Your task to perform on an android device: Show me the alarms in the clock app Image 0: 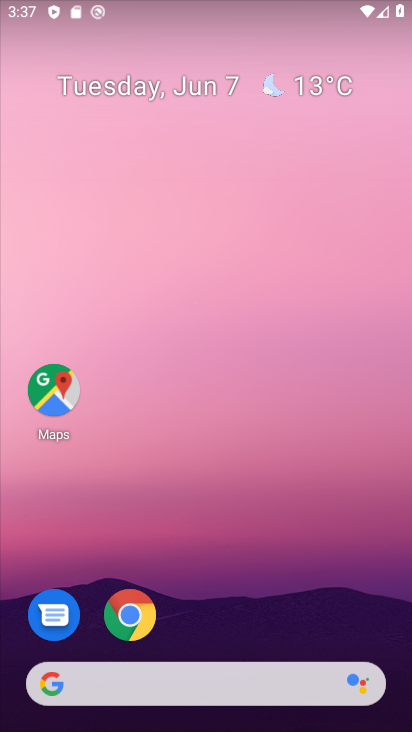
Step 0: drag from (236, 645) to (253, 423)
Your task to perform on an android device: Show me the alarms in the clock app Image 1: 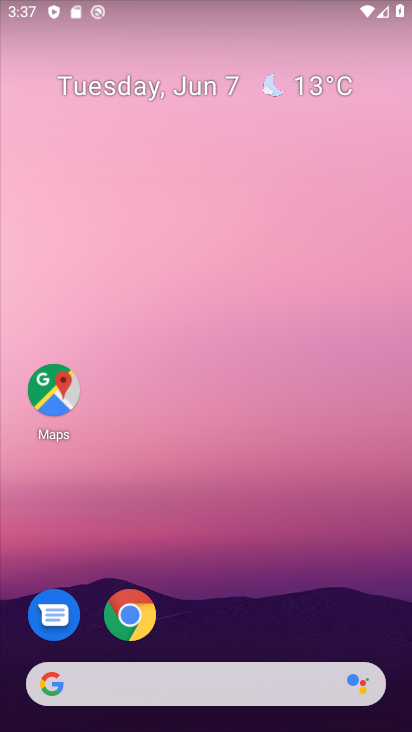
Step 1: drag from (187, 637) to (276, 145)
Your task to perform on an android device: Show me the alarms in the clock app Image 2: 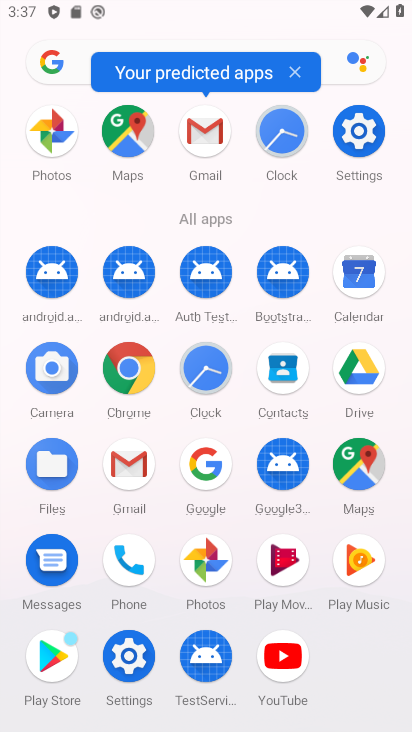
Step 2: click (202, 380)
Your task to perform on an android device: Show me the alarms in the clock app Image 3: 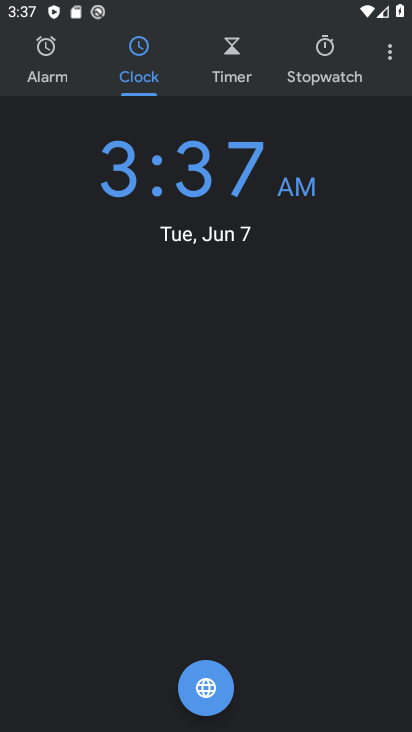
Step 3: click (61, 48)
Your task to perform on an android device: Show me the alarms in the clock app Image 4: 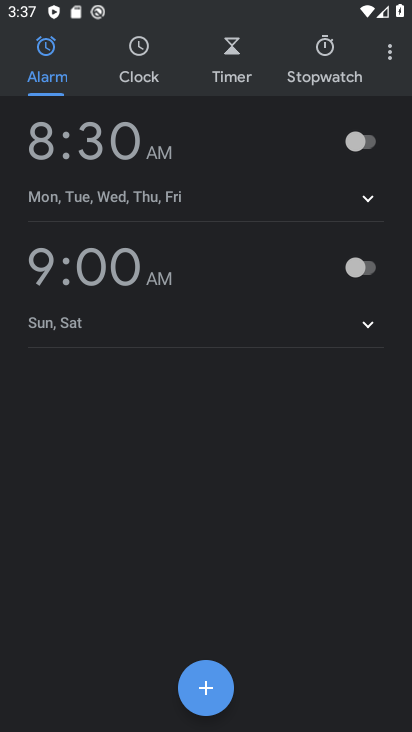
Step 4: task complete